Your task to perform on an android device: Open CNN.com Image 0: 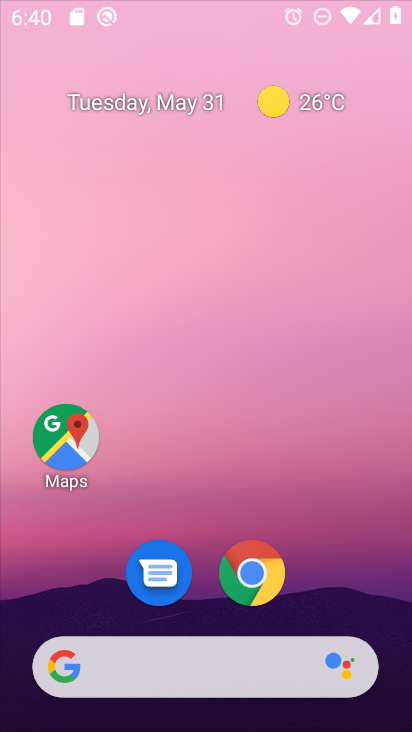
Step 0: drag from (388, 629) to (318, 103)
Your task to perform on an android device: Open CNN.com Image 1: 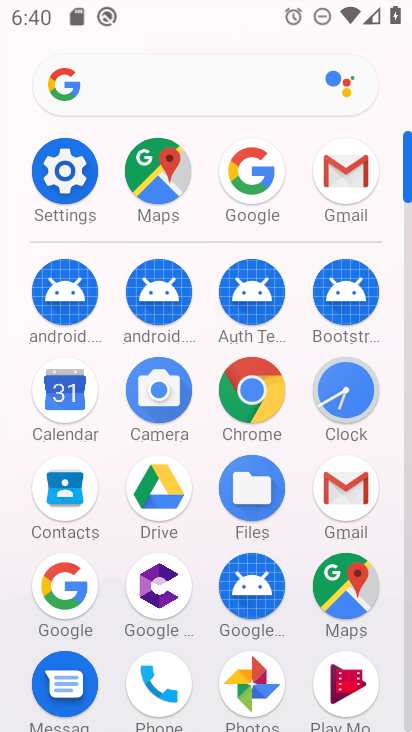
Step 1: click (49, 591)
Your task to perform on an android device: Open CNN.com Image 2: 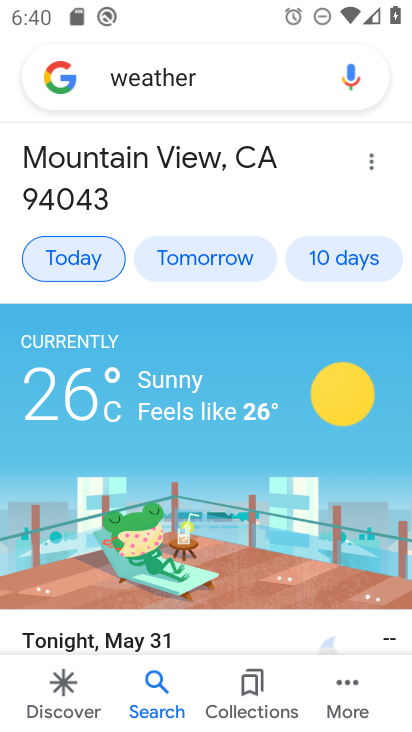
Step 2: press back button
Your task to perform on an android device: Open CNN.com Image 3: 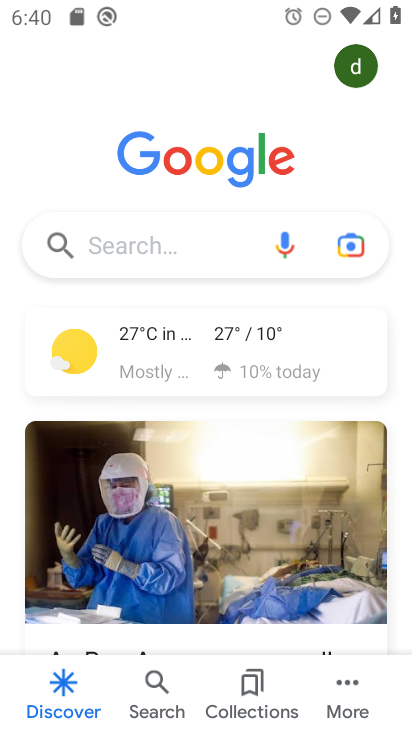
Step 3: click (121, 255)
Your task to perform on an android device: Open CNN.com Image 4: 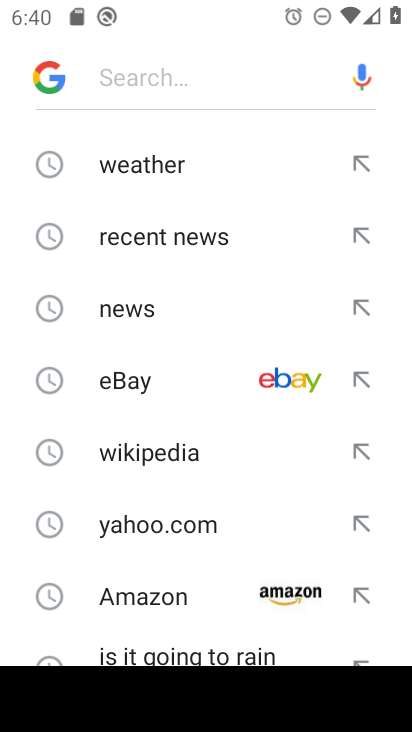
Step 4: drag from (174, 611) to (152, 101)
Your task to perform on an android device: Open CNN.com Image 5: 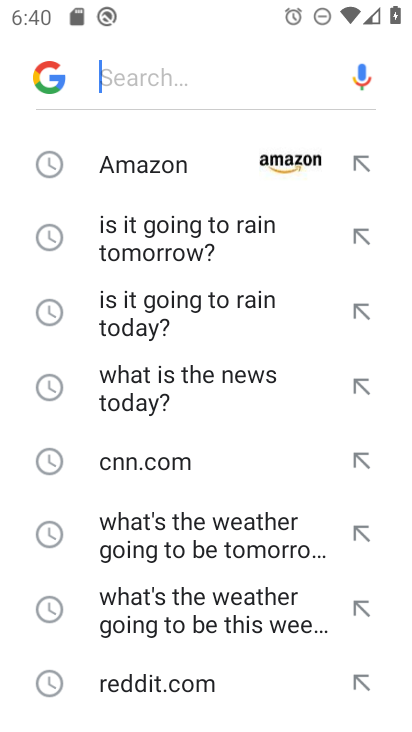
Step 5: click (136, 458)
Your task to perform on an android device: Open CNN.com Image 6: 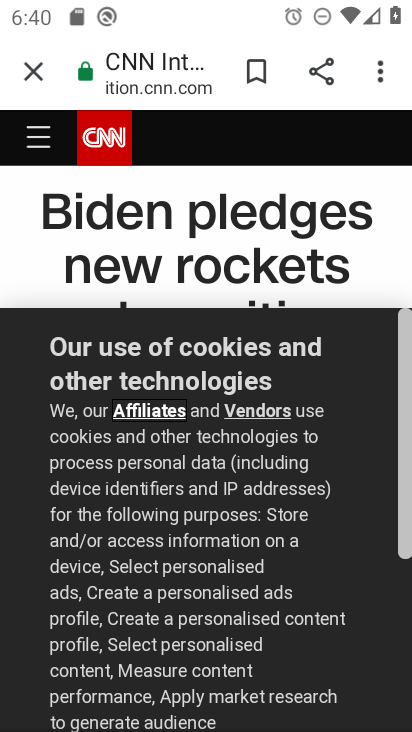
Step 6: task complete